Your task to perform on an android device: turn on location history Image 0: 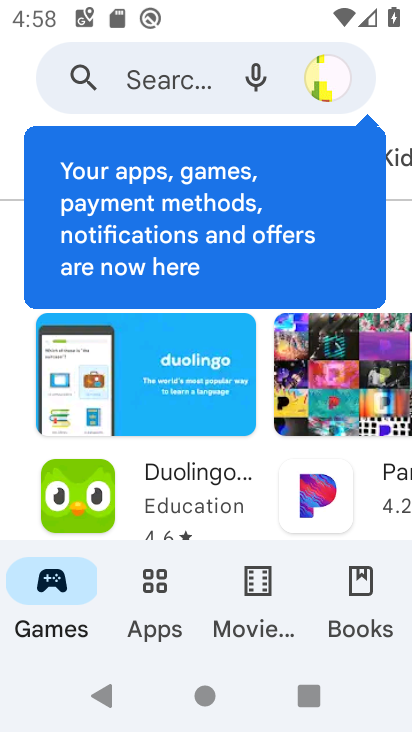
Step 0: press home button
Your task to perform on an android device: turn on location history Image 1: 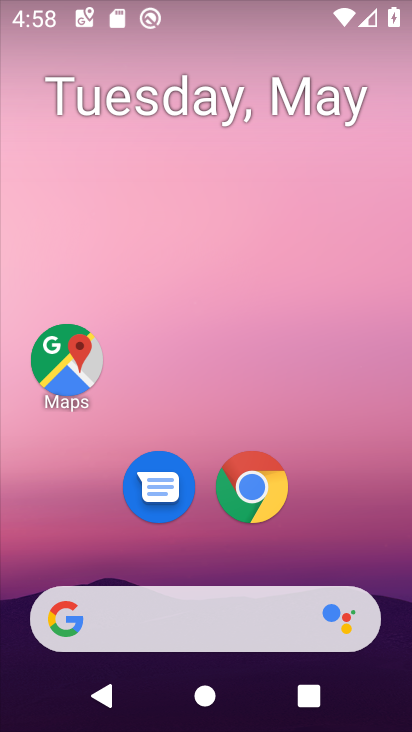
Step 1: drag from (307, 552) to (334, 35)
Your task to perform on an android device: turn on location history Image 2: 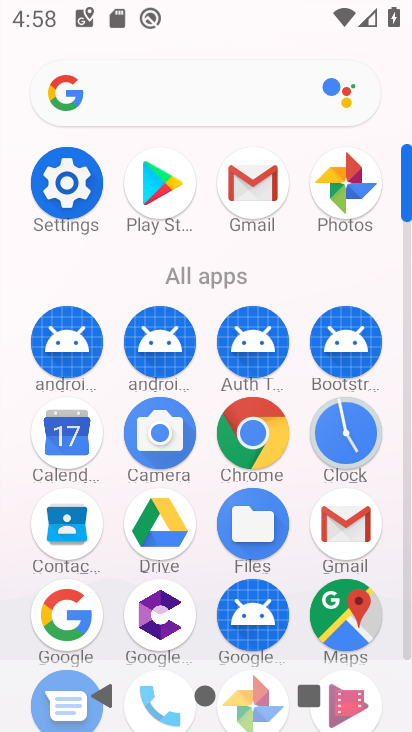
Step 2: click (84, 170)
Your task to perform on an android device: turn on location history Image 3: 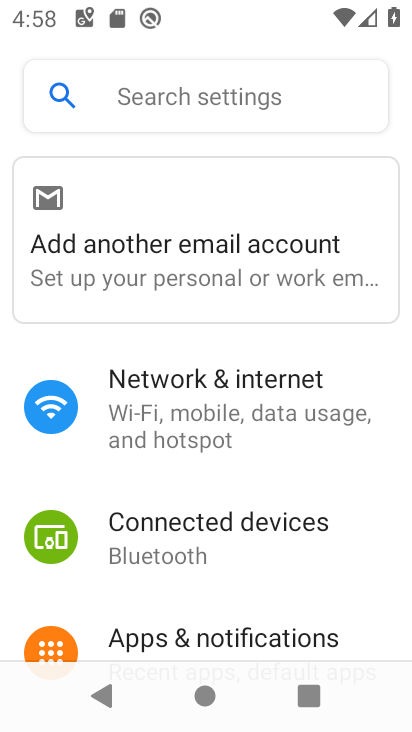
Step 3: drag from (168, 481) to (273, 140)
Your task to perform on an android device: turn on location history Image 4: 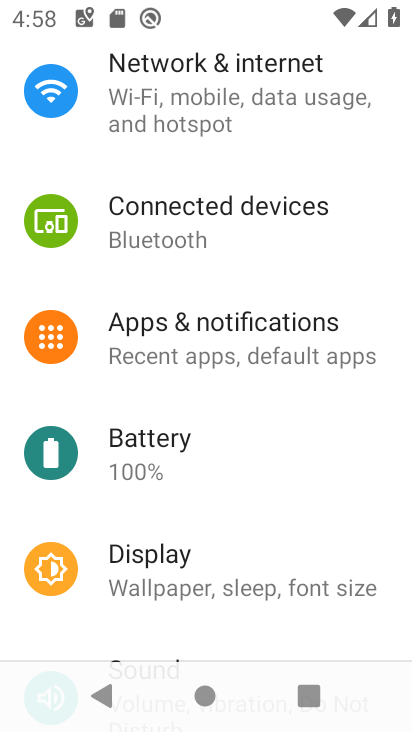
Step 4: drag from (210, 536) to (284, 84)
Your task to perform on an android device: turn on location history Image 5: 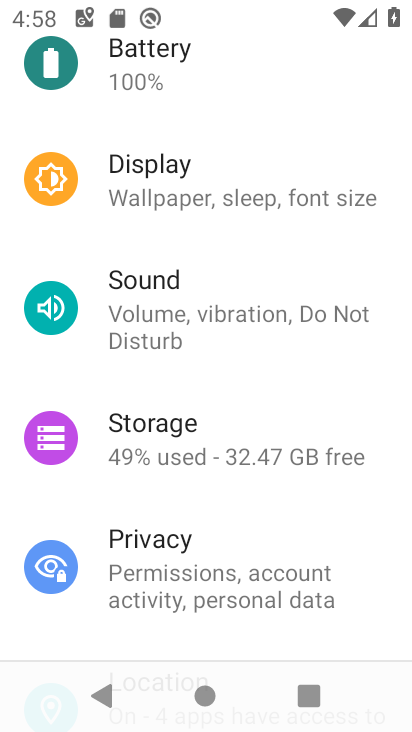
Step 5: drag from (237, 470) to (246, 203)
Your task to perform on an android device: turn on location history Image 6: 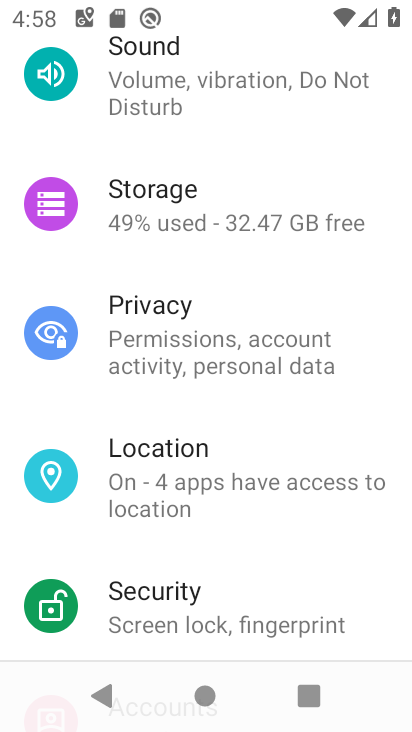
Step 6: click (241, 504)
Your task to perform on an android device: turn on location history Image 7: 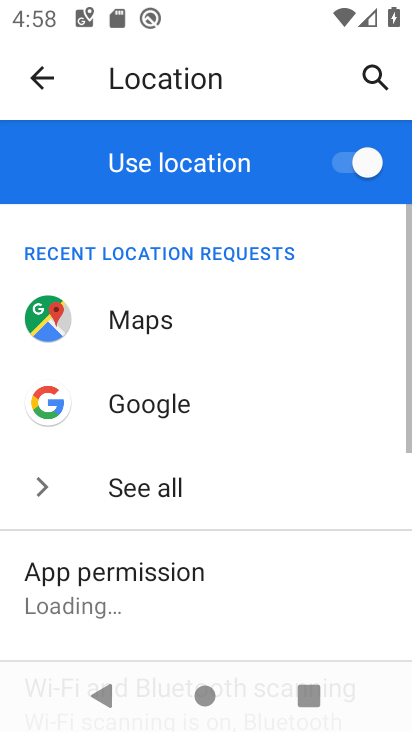
Step 7: drag from (229, 588) to (243, 165)
Your task to perform on an android device: turn on location history Image 8: 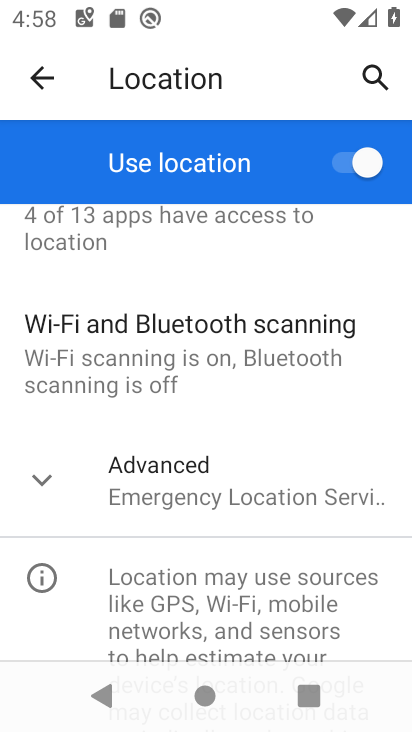
Step 8: click (205, 475)
Your task to perform on an android device: turn on location history Image 9: 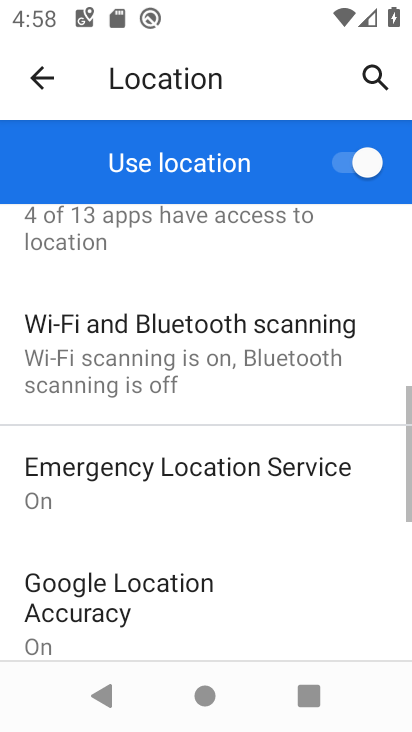
Step 9: drag from (193, 595) to (242, 342)
Your task to perform on an android device: turn on location history Image 10: 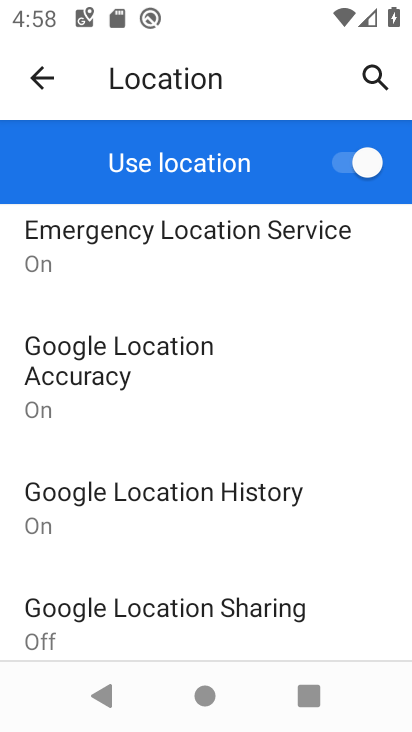
Step 10: click (236, 495)
Your task to perform on an android device: turn on location history Image 11: 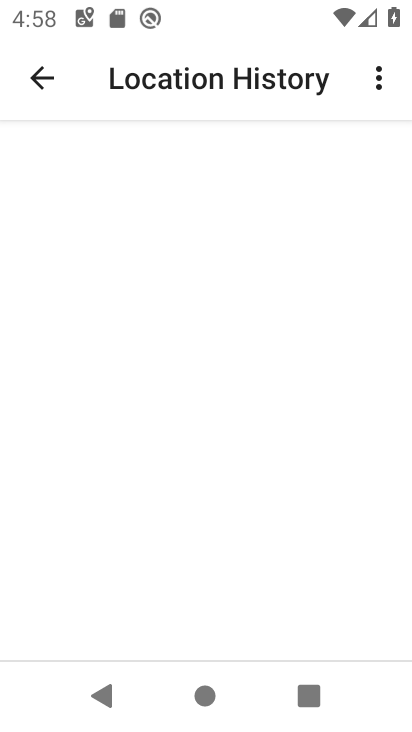
Step 11: task complete